Your task to perform on an android device: change keyboard looks Image 0: 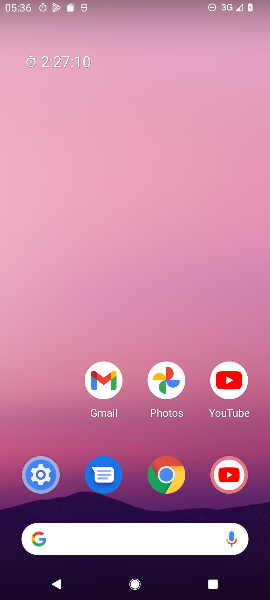
Step 0: drag from (66, 432) to (39, 163)
Your task to perform on an android device: change keyboard looks Image 1: 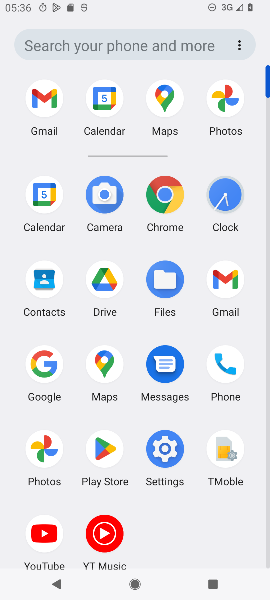
Step 1: click (172, 452)
Your task to perform on an android device: change keyboard looks Image 2: 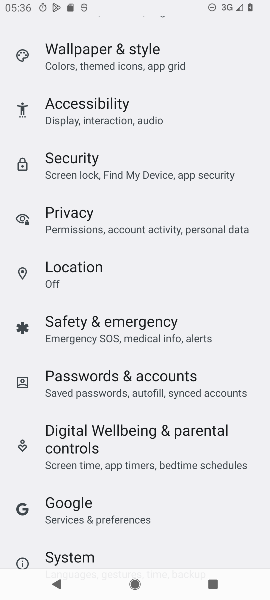
Step 2: drag from (234, 260) to (240, 326)
Your task to perform on an android device: change keyboard looks Image 3: 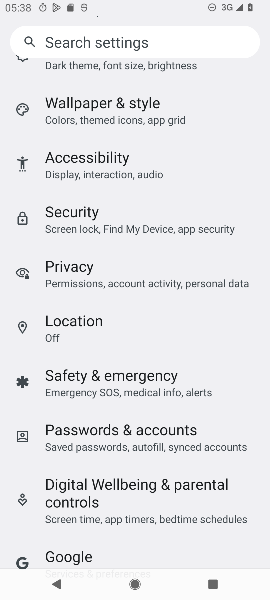
Step 3: drag from (215, 347) to (214, 286)
Your task to perform on an android device: change keyboard looks Image 4: 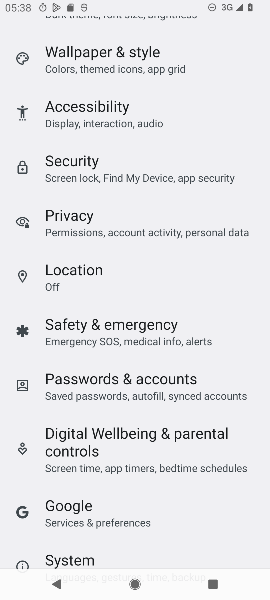
Step 4: drag from (234, 377) to (243, 291)
Your task to perform on an android device: change keyboard looks Image 5: 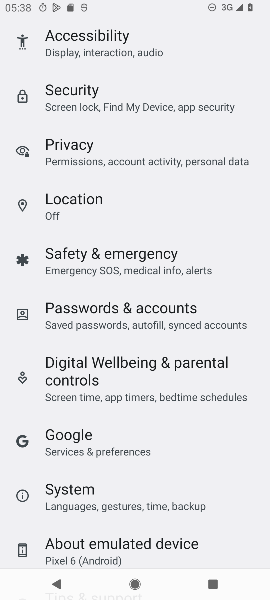
Step 5: drag from (232, 442) to (230, 394)
Your task to perform on an android device: change keyboard looks Image 6: 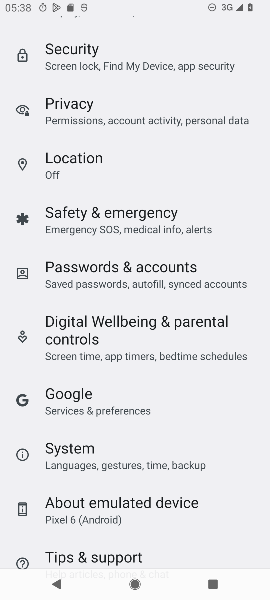
Step 6: click (185, 466)
Your task to perform on an android device: change keyboard looks Image 7: 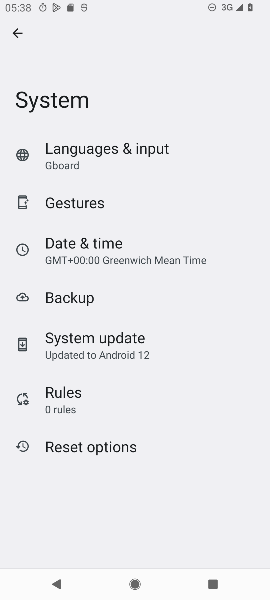
Step 7: click (129, 161)
Your task to perform on an android device: change keyboard looks Image 8: 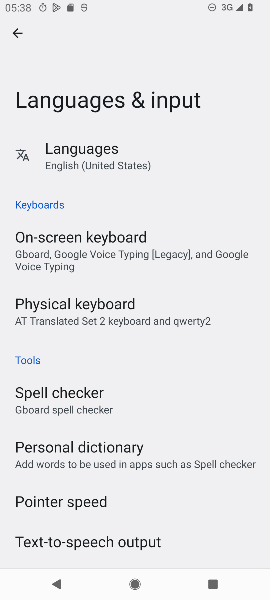
Step 8: click (126, 250)
Your task to perform on an android device: change keyboard looks Image 9: 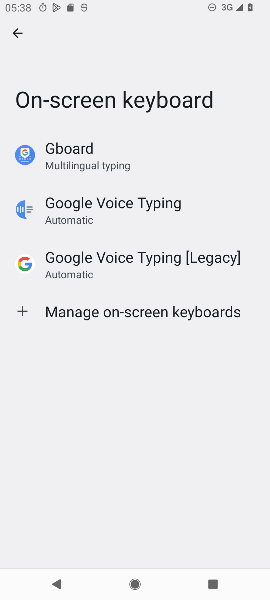
Step 9: click (118, 167)
Your task to perform on an android device: change keyboard looks Image 10: 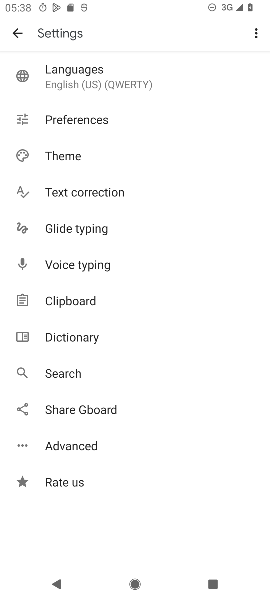
Step 10: click (87, 153)
Your task to perform on an android device: change keyboard looks Image 11: 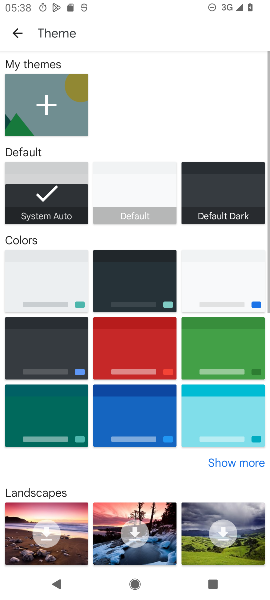
Step 11: click (141, 341)
Your task to perform on an android device: change keyboard looks Image 12: 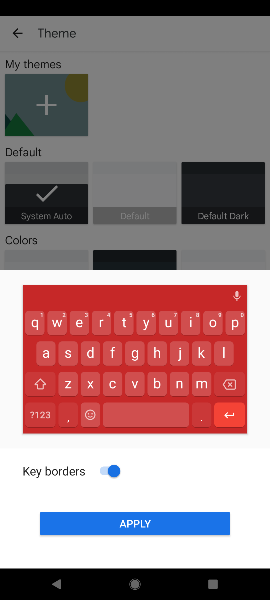
Step 12: click (155, 515)
Your task to perform on an android device: change keyboard looks Image 13: 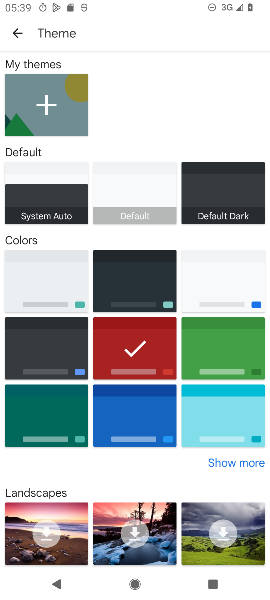
Step 13: task complete